Your task to perform on an android device: What's the weather going to be this weekend? Image 0: 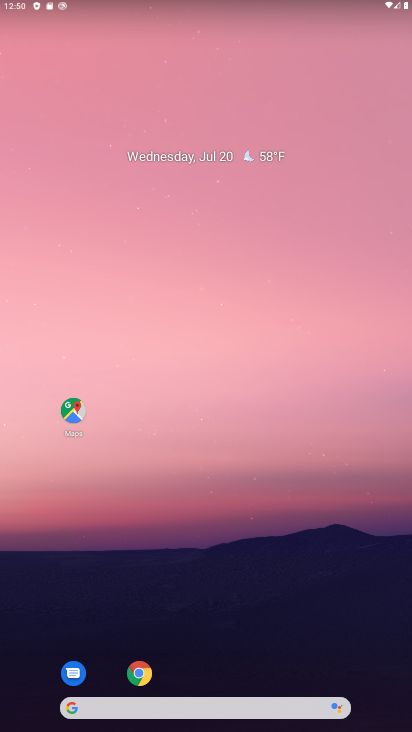
Step 0: drag from (4, 272) to (410, 326)
Your task to perform on an android device: What's the weather going to be this weekend? Image 1: 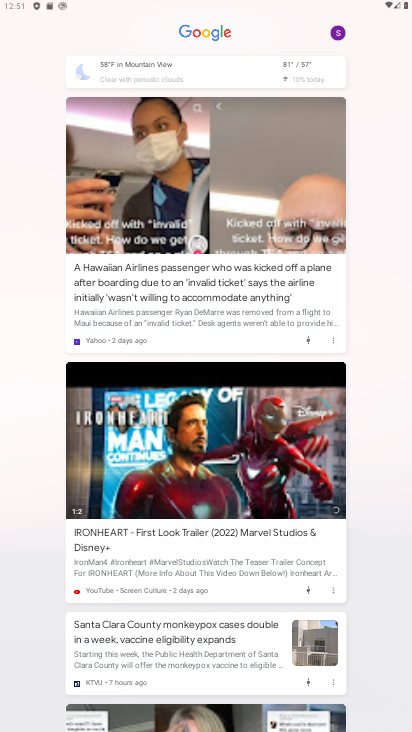
Step 1: click (311, 68)
Your task to perform on an android device: What's the weather going to be this weekend? Image 2: 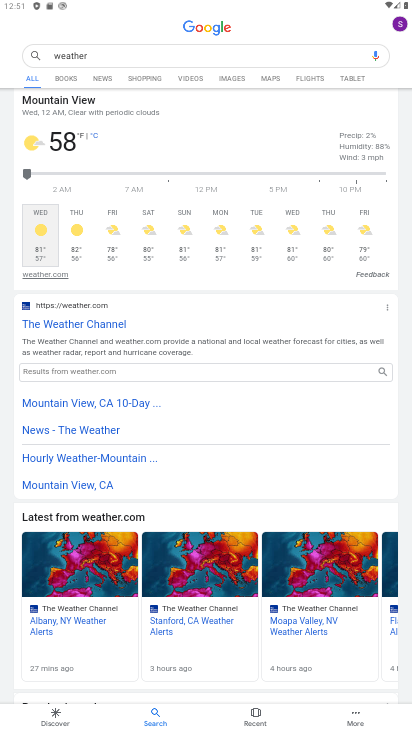
Step 2: click (146, 230)
Your task to perform on an android device: What's the weather going to be this weekend? Image 3: 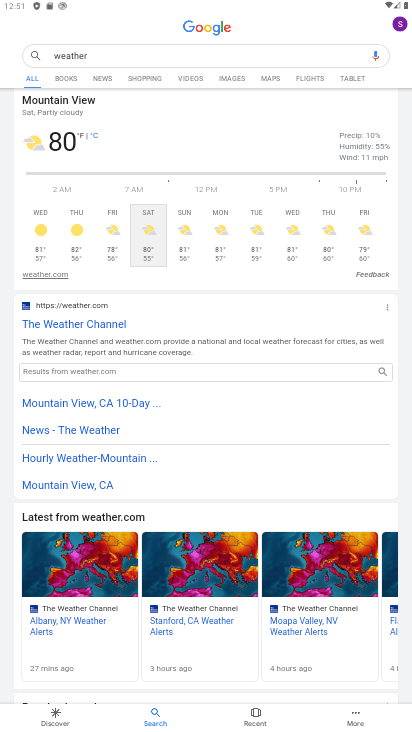
Step 3: task complete